Your task to perform on an android device: Open Maps and search for coffee Image 0: 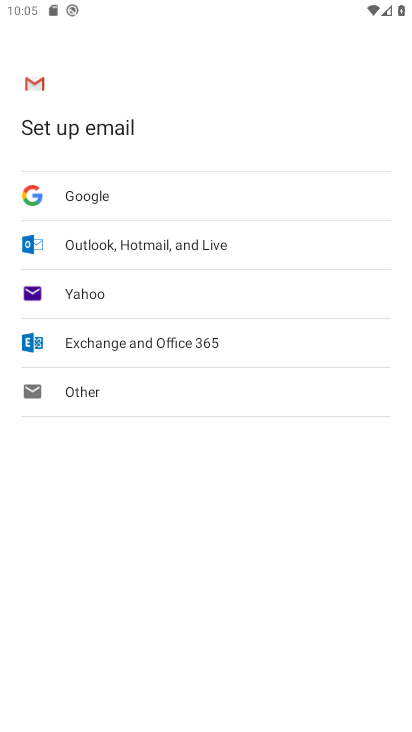
Step 0: press home button
Your task to perform on an android device: Open Maps and search for coffee Image 1: 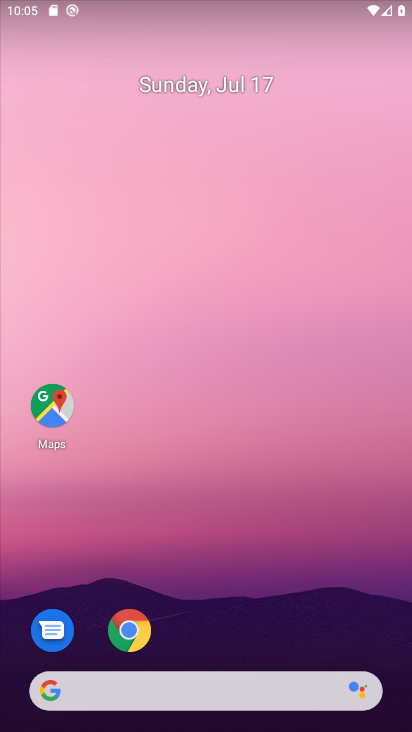
Step 1: click (56, 411)
Your task to perform on an android device: Open Maps and search for coffee Image 2: 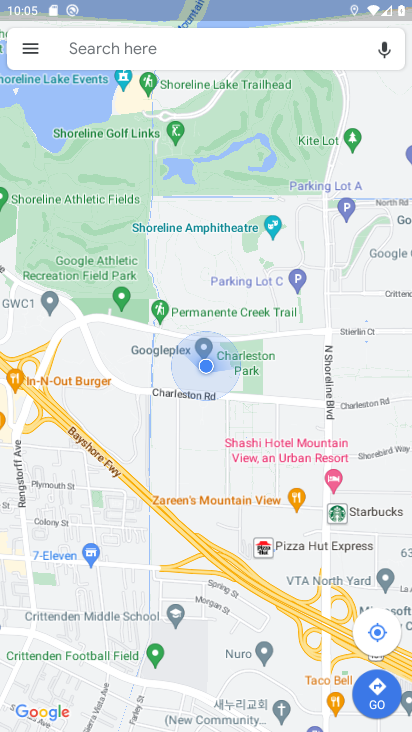
Step 2: click (237, 40)
Your task to perform on an android device: Open Maps and search for coffee Image 3: 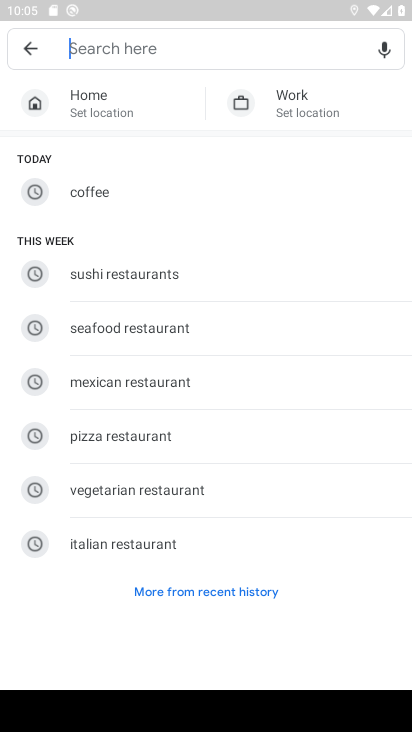
Step 3: click (99, 188)
Your task to perform on an android device: Open Maps and search for coffee Image 4: 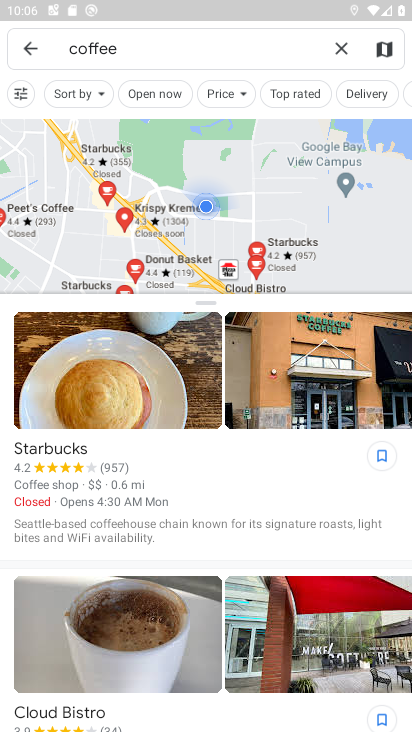
Step 4: task complete